Your task to perform on an android device: Open maps Image 0: 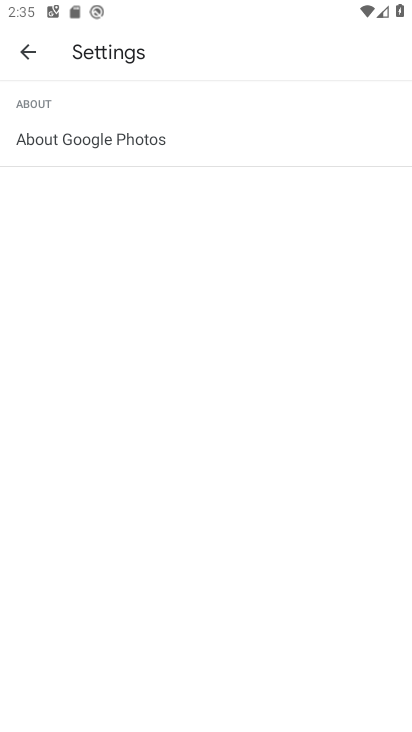
Step 0: press back button
Your task to perform on an android device: Open maps Image 1: 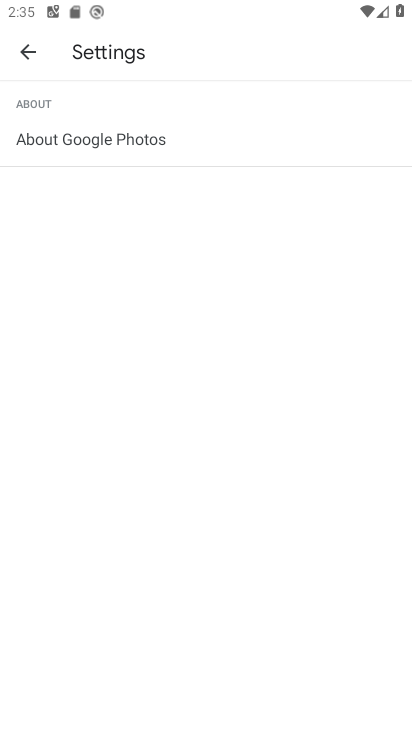
Step 1: press back button
Your task to perform on an android device: Open maps Image 2: 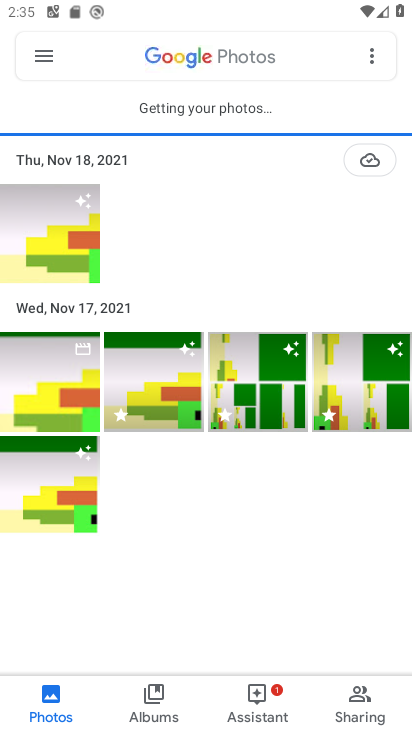
Step 2: press home button
Your task to perform on an android device: Open maps Image 3: 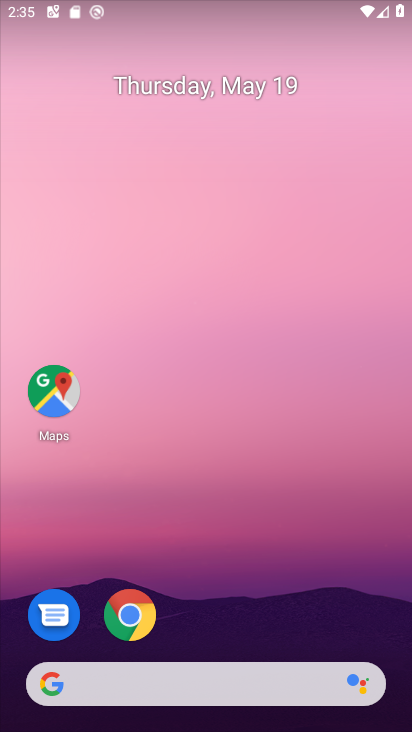
Step 3: drag from (246, 557) to (244, 32)
Your task to perform on an android device: Open maps Image 4: 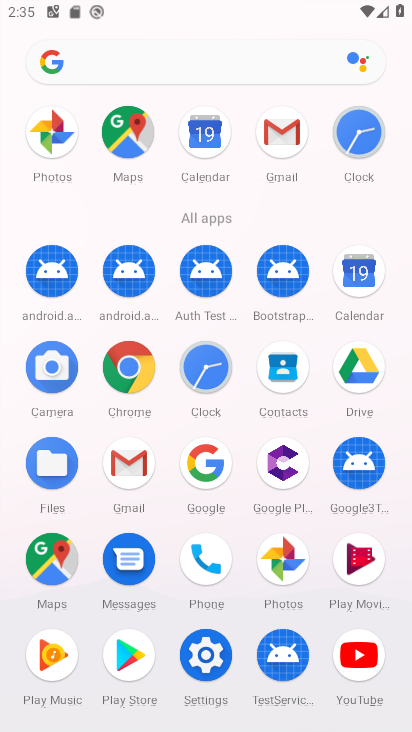
Step 4: click (44, 557)
Your task to perform on an android device: Open maps Image 5: 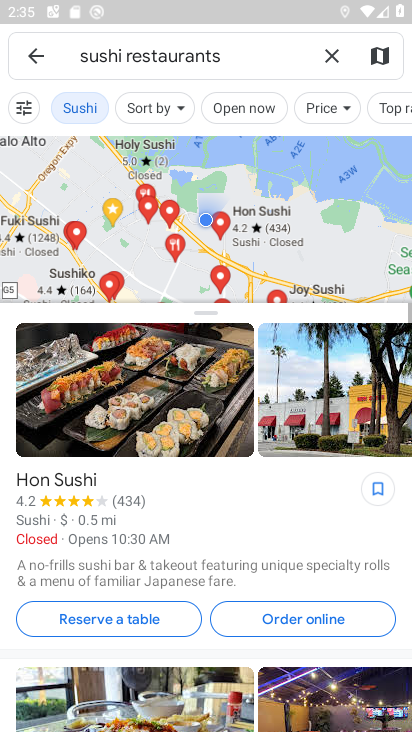
Step 5: click (30, 51)
Your task to perform on an android device: Open maps Image 6: 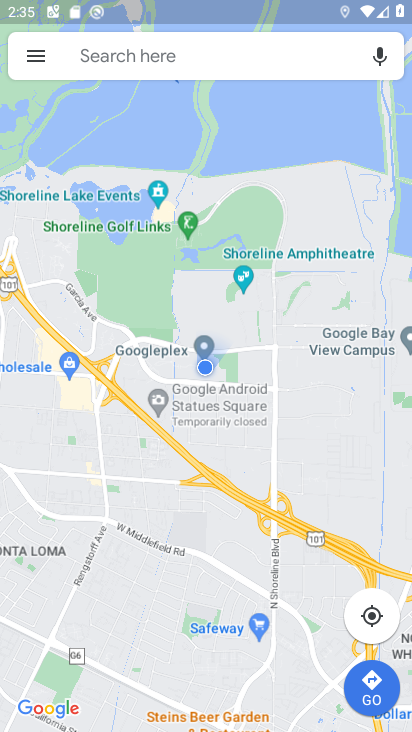
Step 6: task complete